Your task to perform on an android device: Go to CNN.com Image 0: 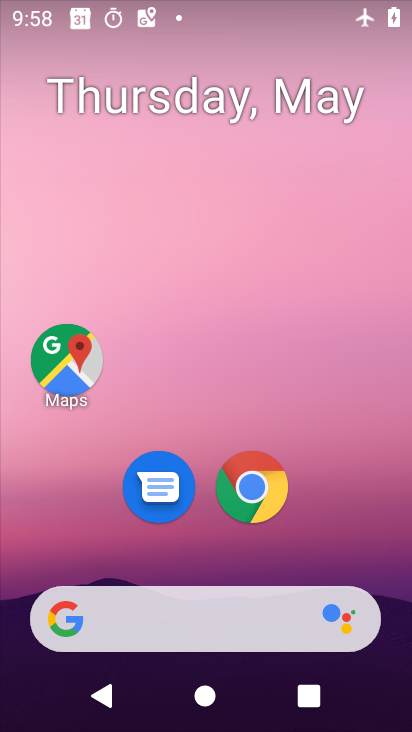
Step 0: click (262, 514)
Your task to perform on an android device: Go to CNN.com Image 1: 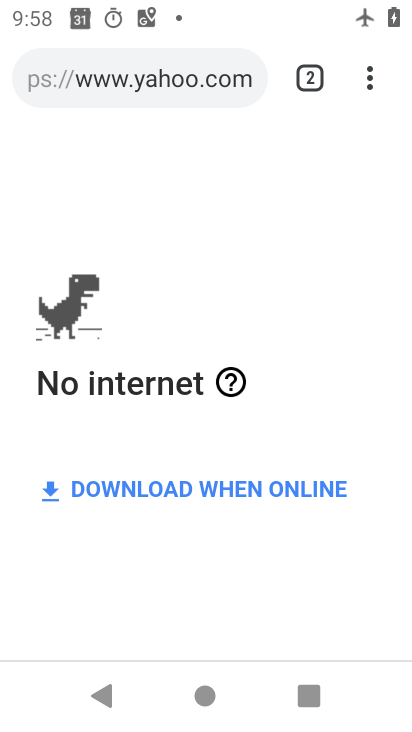
Step 1: click (215, 91)
Your task to perform on an android device: Go to CNN.com Image 2: 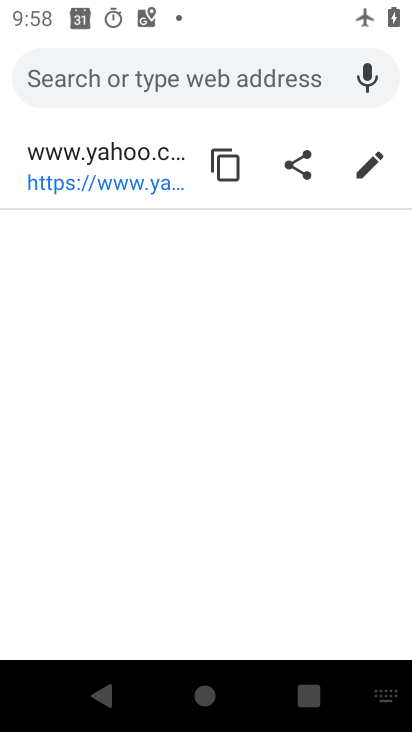
Step 2: type "cnn.com"
Your task to perform on an android device: Go to CNN.com Image 3: 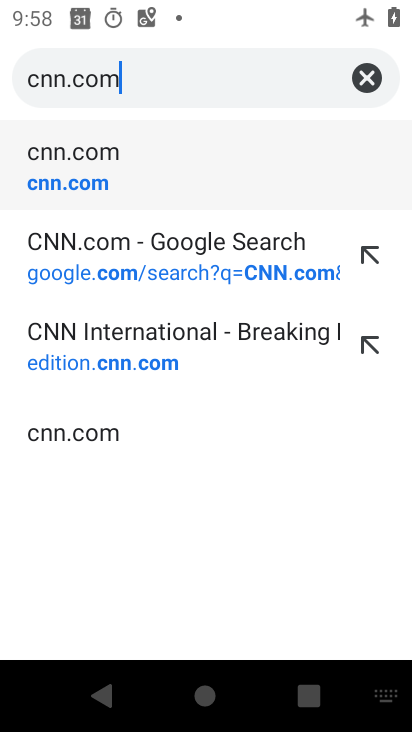
Step 3: type ""
Your task to perform on an android device: Go to CNN.com Image 4: 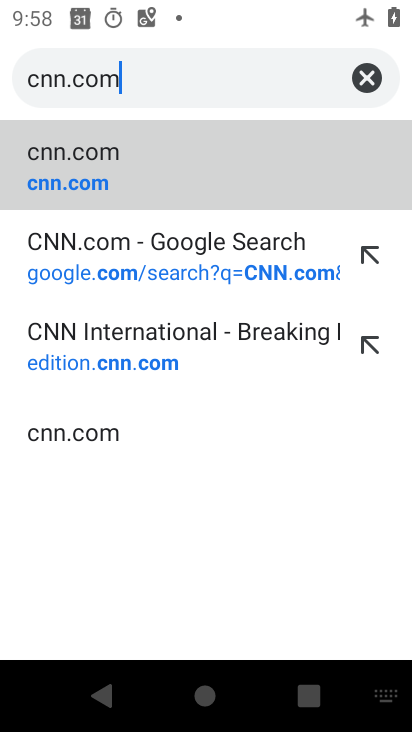
Step 4: click (241, 180)
Your task to perform on an android device: Go to CNN.com Image 5: 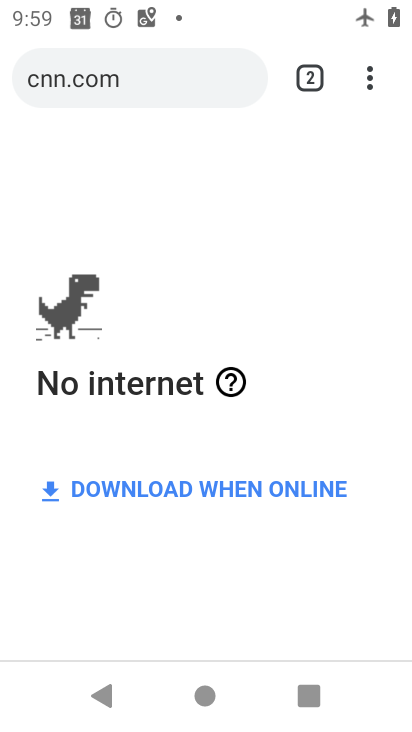
Step 5: task complete